Your task to perform on an android device: empty trash in google photos Image 0: 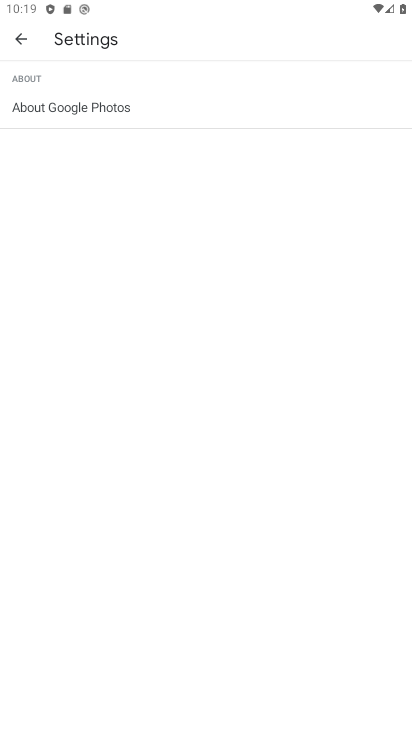
Step 0: press home button
Your task to perform on an android device: empty trash in google photos Image 1: 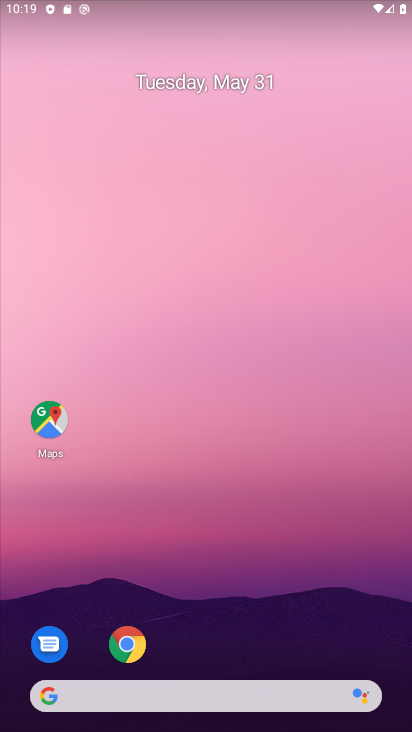
Step 1: drag from (198, 627) to (217, 257)
Your task to perform on an android device: empty trash in google photos Image 2: 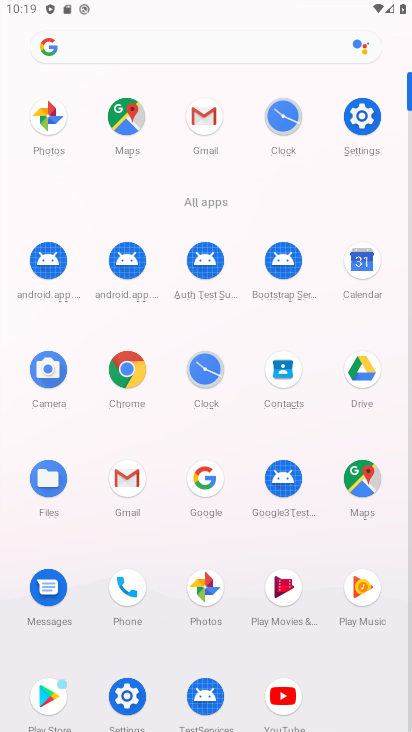
Step 2: click (209, 584)
Your task to perform on an android device: empty trash in google photos Image 3: 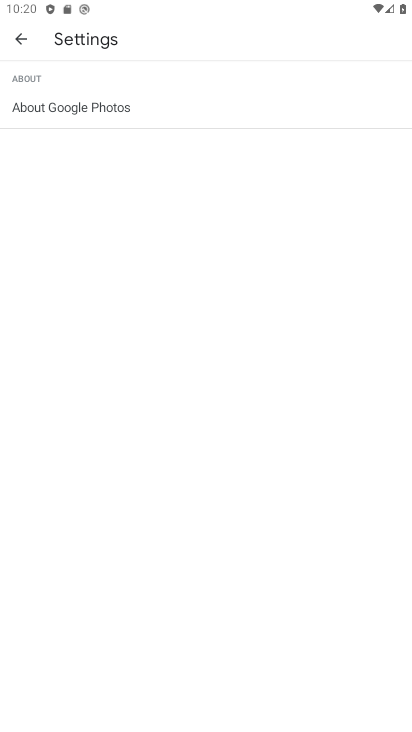
Step 3: click (19, 45)
Your task to perform on an android device: empty trash in google photos Image 4: 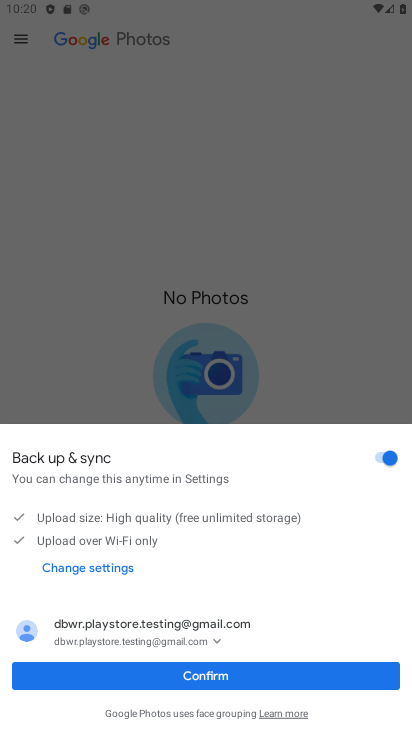
Step 4: click (208, 666)
Your task to perform on an android device: empty trash in google photos Image 5: 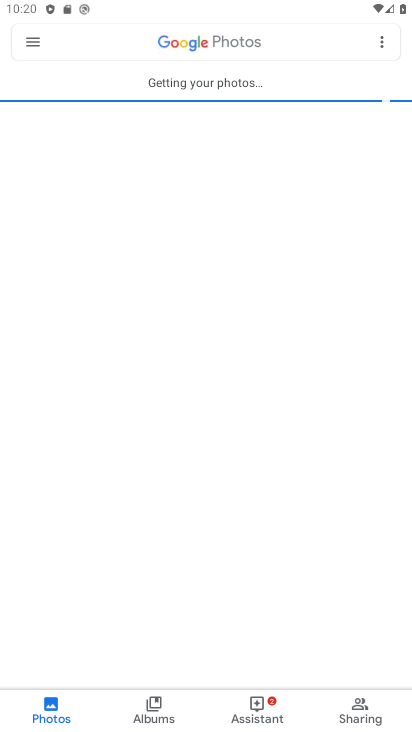
Step 5: click (26, 48)
Your task to perform on an android device: empty trash in google photos Image 6: 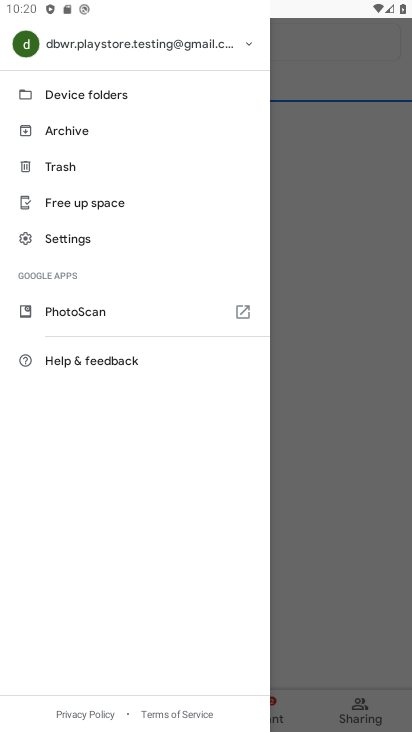
Step 6: click (77, 168)
Your task to perform on an android device: empty trash in google photos Image 7: 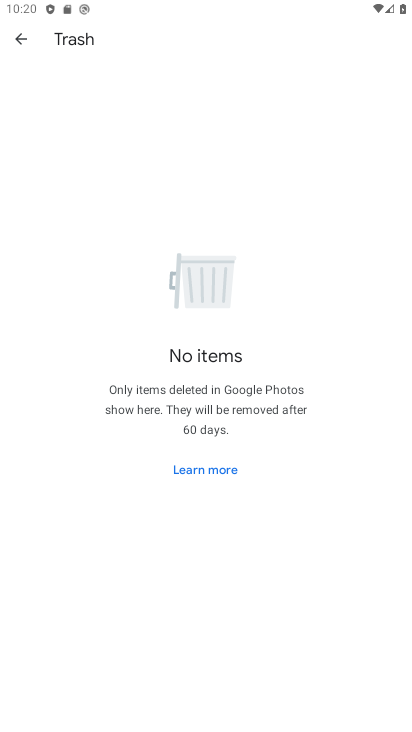
Step 7: task complete